Your task to perform on an android device: Go to Reddit.com Image 0: 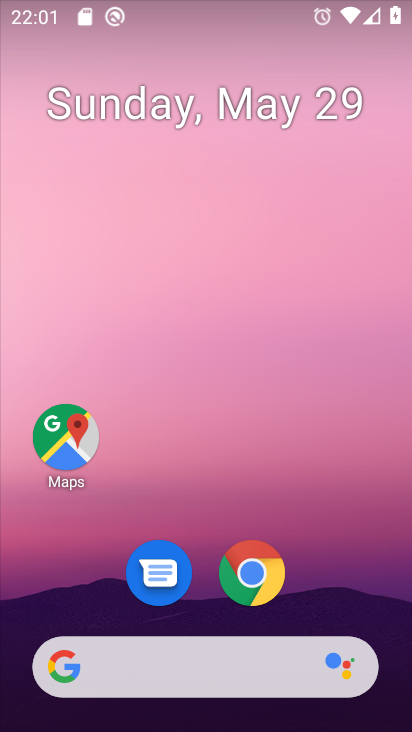
Step 0: click (221, 679)
Your task to perform on an android device: Go to Reddit.com Image 1: 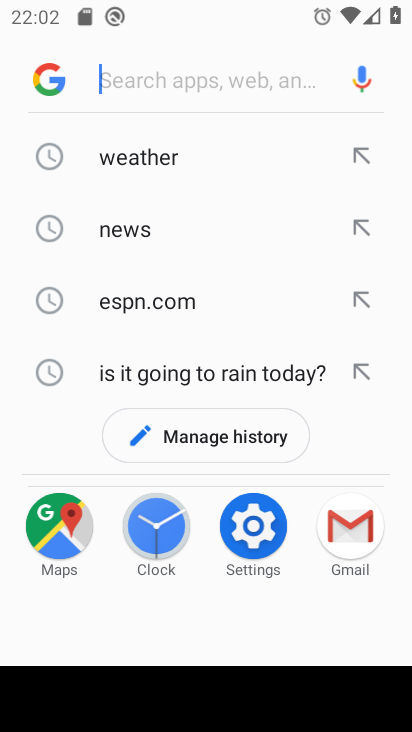
Step 1: type "reddit.com"
Your task to perform on an android device: Go to Reddit.com Image 2: 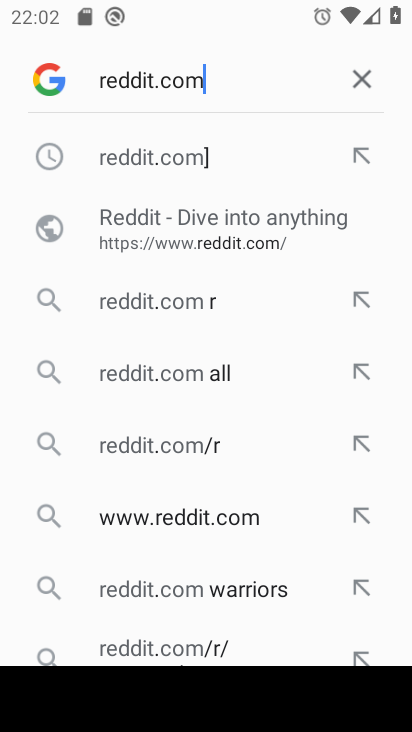
Step 2: click (149, 215)
Your task to perform on an android device: Go to Reddit.com Image 3: 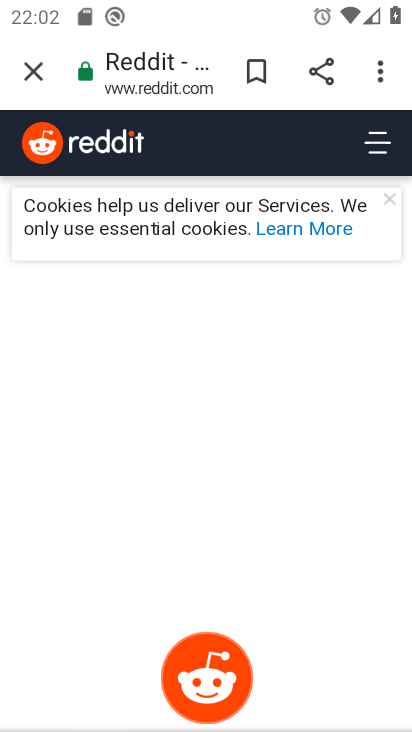
Step 3: task complete